Your task to perform on an android device: Go to Google maps Image 0: 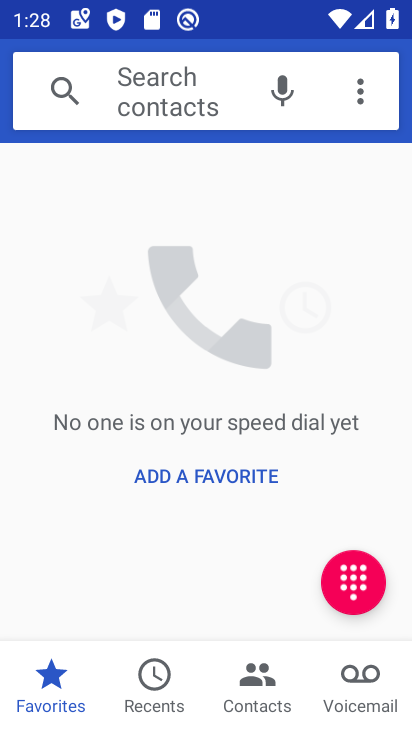
Step 0: press home button
Your task to perform on an android device: Go to Google maps Image 1: 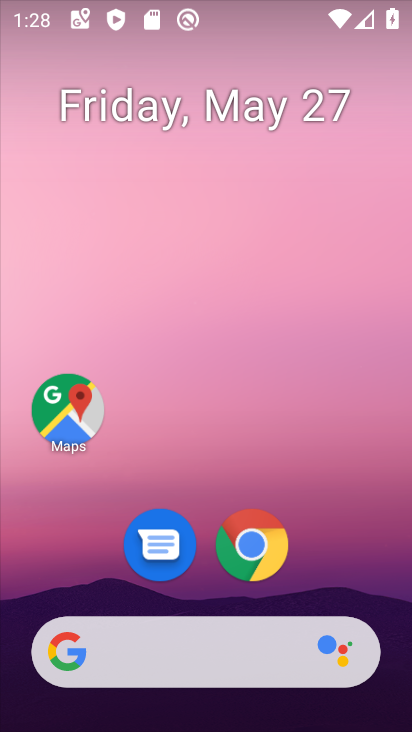
Step 1: click (66, 422)
Your task to perform on an android device: Go to Google maps Image 2: 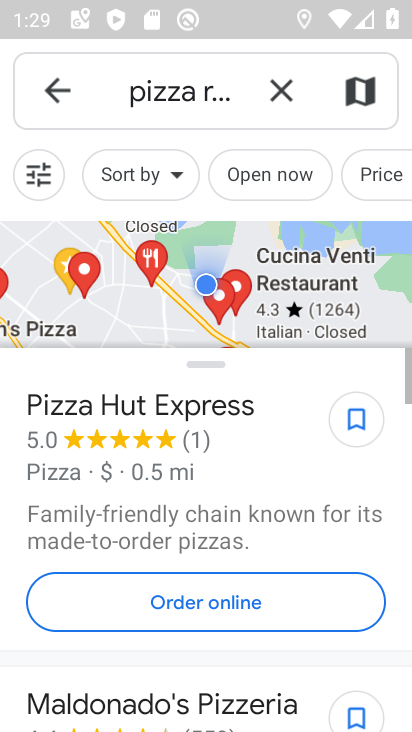
Step 2: task complete